Your task to perform on an android device: add a label to a message in the gmail app Image 0: 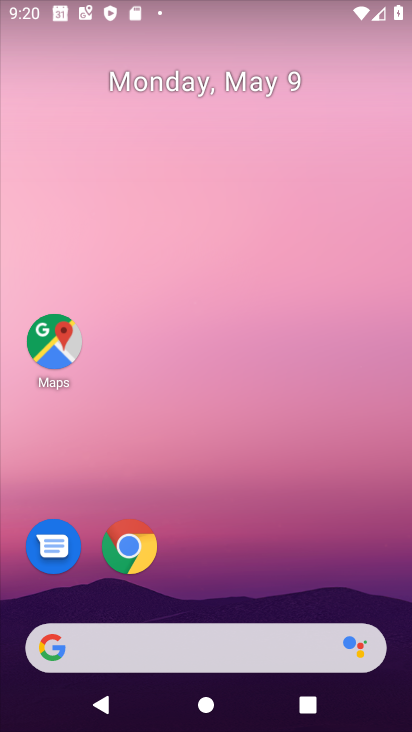
Step 0: drag from (237, 658) to (274, 83)
Your task to perform on an android device: add a label to a message in the gmail app Image 1: 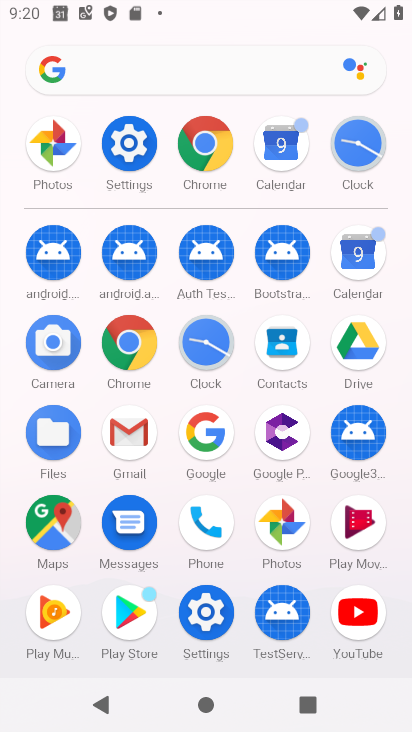
Step 1: click (140, 424)
Your task to perform on an android device: add a label to a message in the gmail app Image 2: 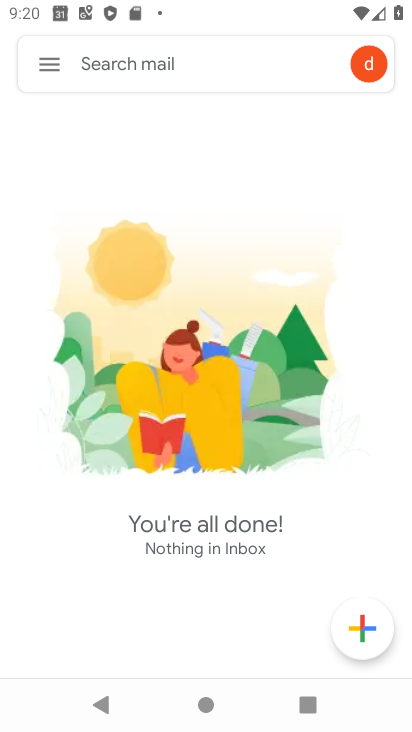
Step 2: task complete